Your task to perform on an android device: When is my next appointment? Image 0: 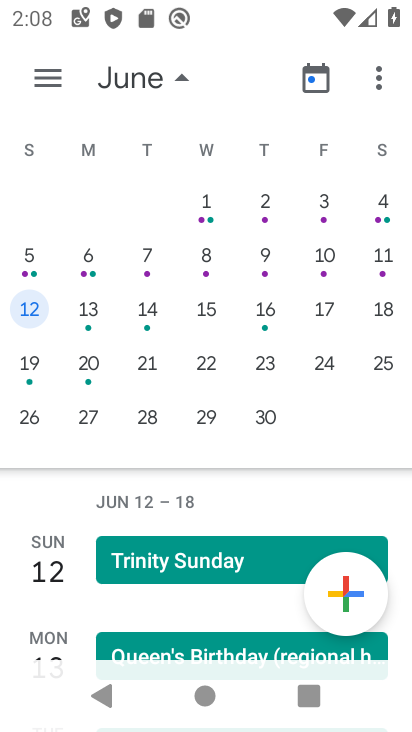
Step 0: press home button
Your task to perform on an android device: When is my next appointment? Image 1: 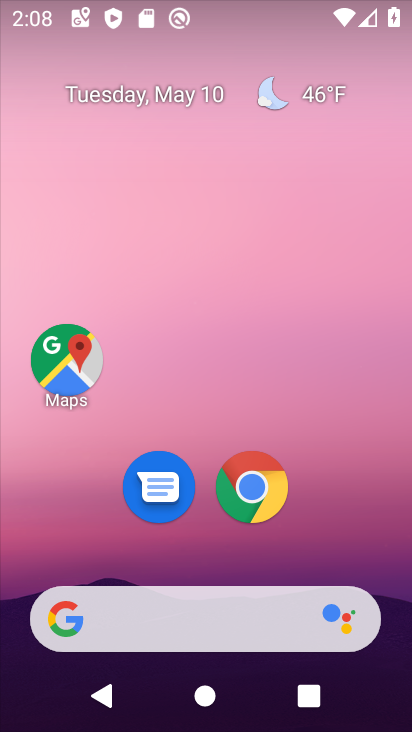
Step 1: drag from (318, 560) to (330, 38)
Your task to perform on an android device: When is my next appointment? Image 2: 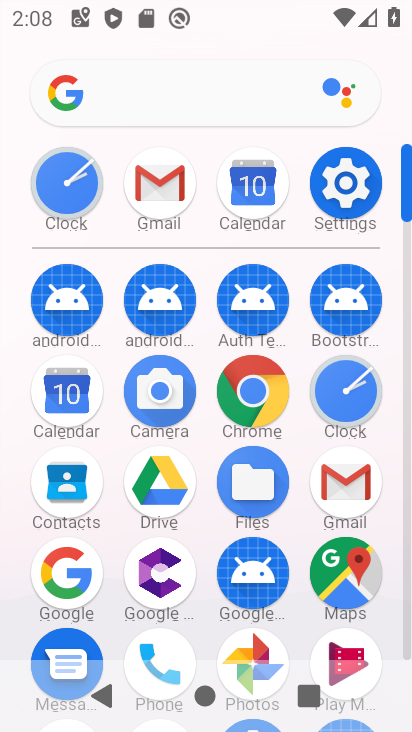
Step 2: click (65, 397)
Your task to perform on an android device: When is my next appointment? Image 3: 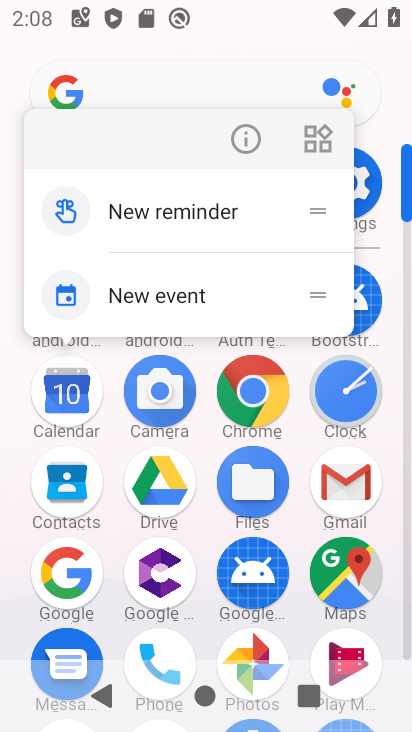
Step 3: click (67, 397)
Your task to perform on an android device: When is my next appointment? Image 4: 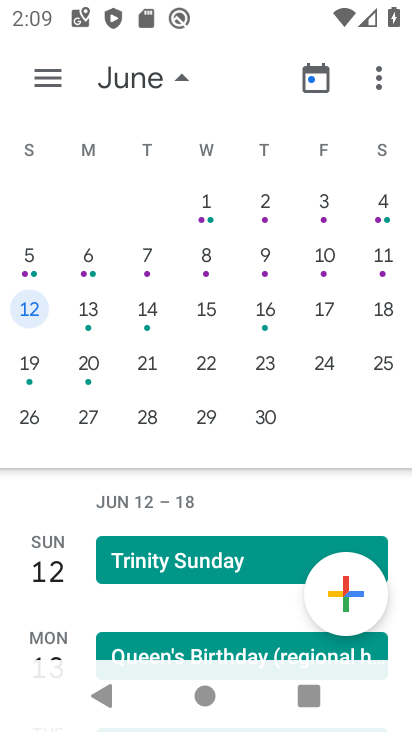
Step 4: drag from (33, 318) to (383, 312)
Your task to perform on an android device: When is my next appointment? Image 5: 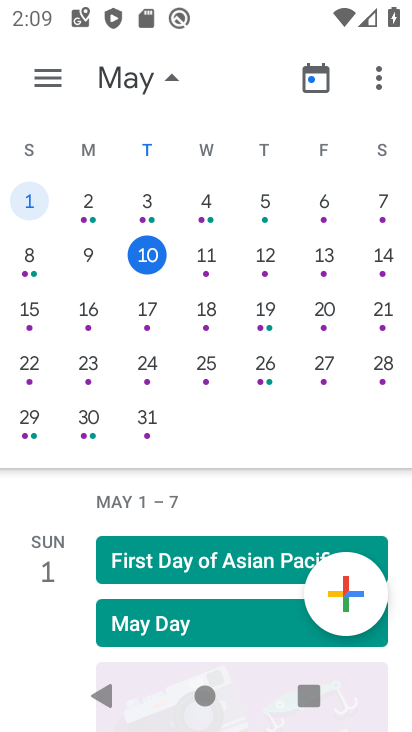
Step 5: click (153, 253)
Your task to perform on an android device: When is my next appointment? Image 6: 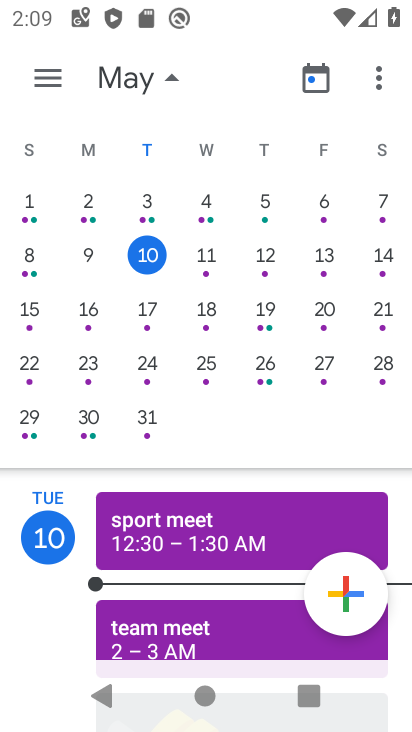
Step 6: task complete